Your task to perform on an android device: Play the last video I watched on Youtube Image 0: 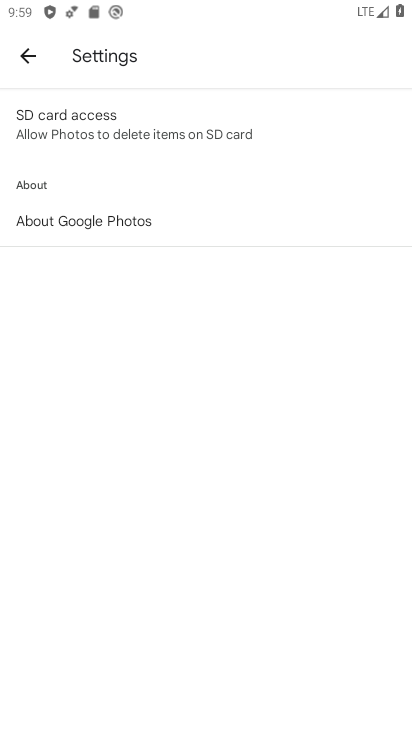
Step 0: press home button
Your task to perform on an android device: Play the last video I watched on Youtube Image 1: 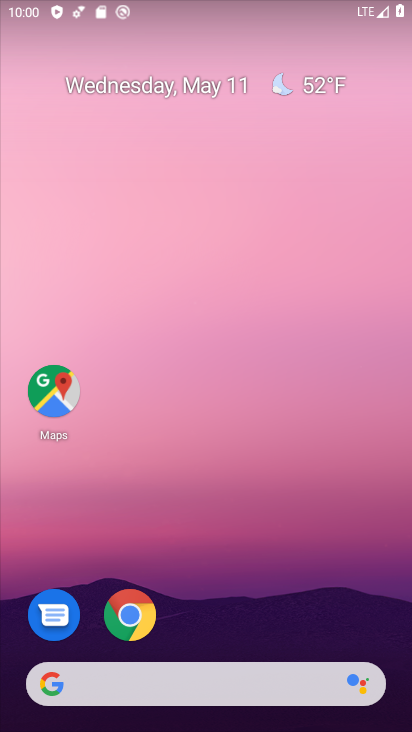
Step 1: drag from (234, 617) to (182, 46)
Your task to perform on an android device: Play the last video I watched on Youtube Image 2: 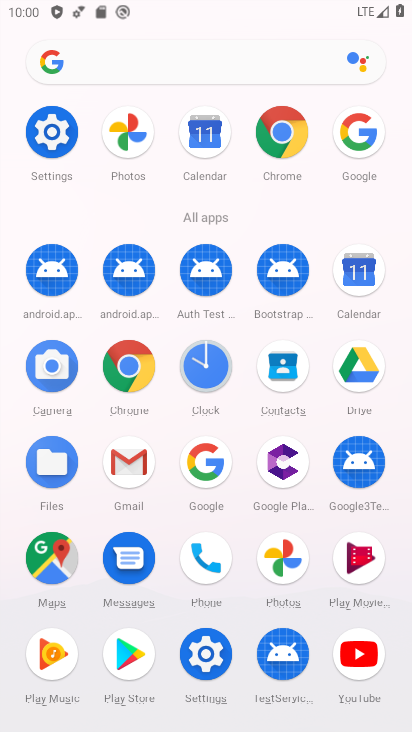
Step 2: click (360, 654)
Your task to perform on an android device: Play the last video I watched on Youtube Image 3: 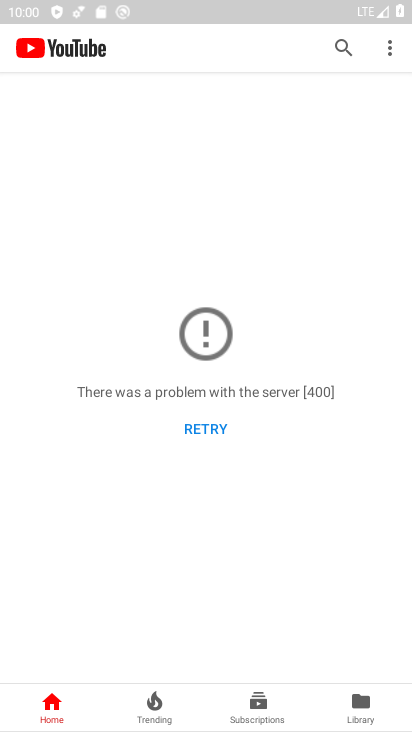
Step 3: click (360, 705)
Your task to perform on an android device: Play the last video I watched on Youtube Image 4: 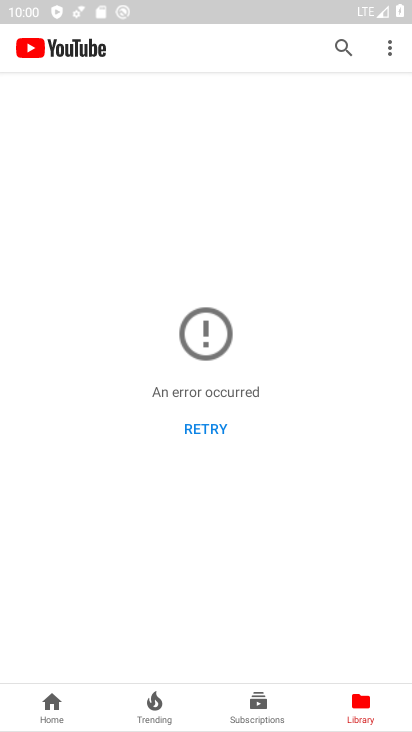
Step 4: click (217, 433)
Your task to perform on an android device: Play the last video I watched on Youtube Image 5: 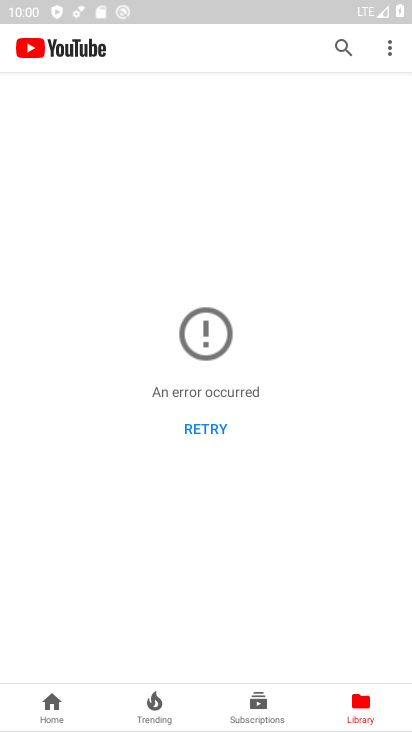
Step 5: click (214, 428)
Your task to perform on an android device: Play the last video I watched on Youtube Image 6: 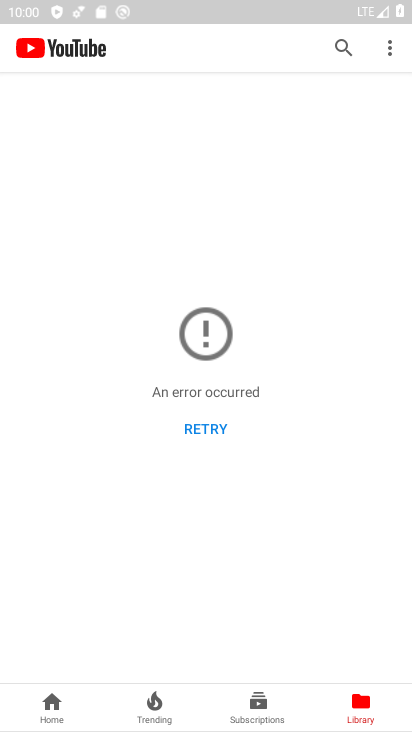
Step 6: click (214, 427)
Your task to perform on an android device: Play the last video I watched on Youtube Image 7: 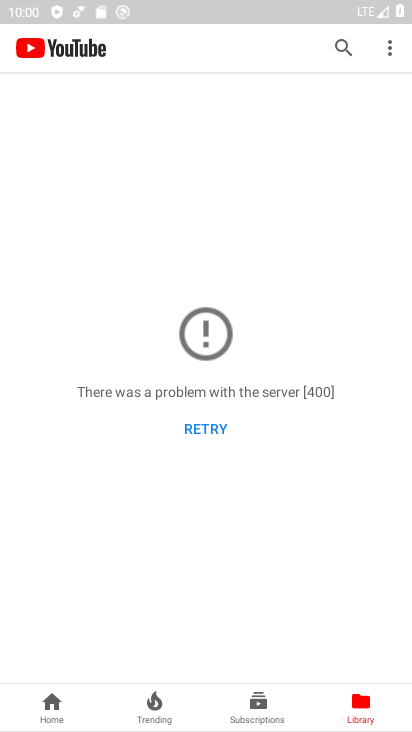
Step 7: click (214, 427)
Your task to perform on an android device: Play the last video I watched on Youtube Image 8: 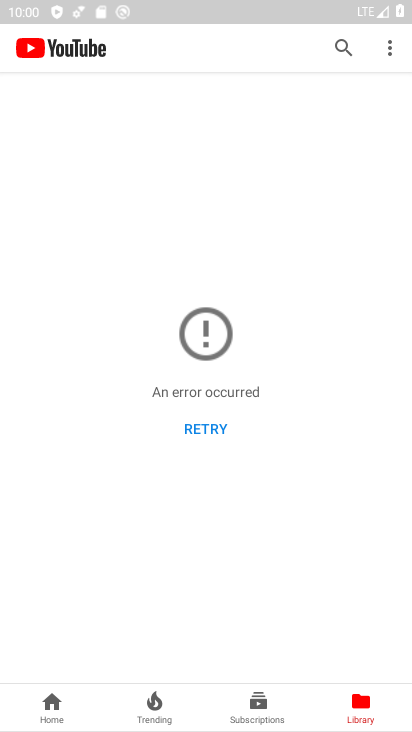
Step 8: click (214, 427)
Your task to perform on an android device: Play the last video I watched on Youtube Image 9: 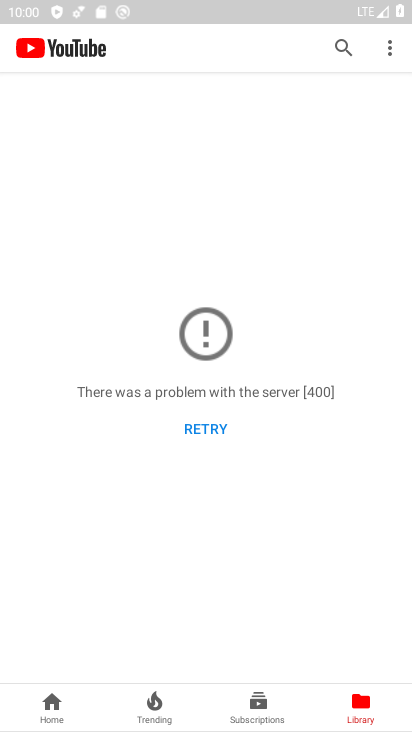
Step 9: task complete